Your task to perform on an android device: turn off location Image 0: 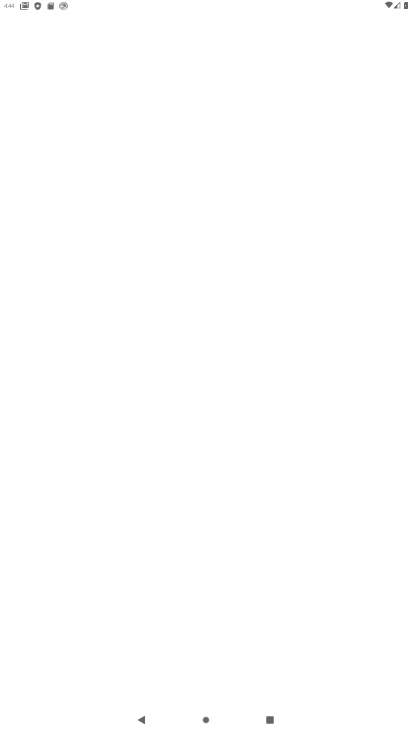
Step 0: press home button
Your task to perform on an android device: turn off location Image 1: 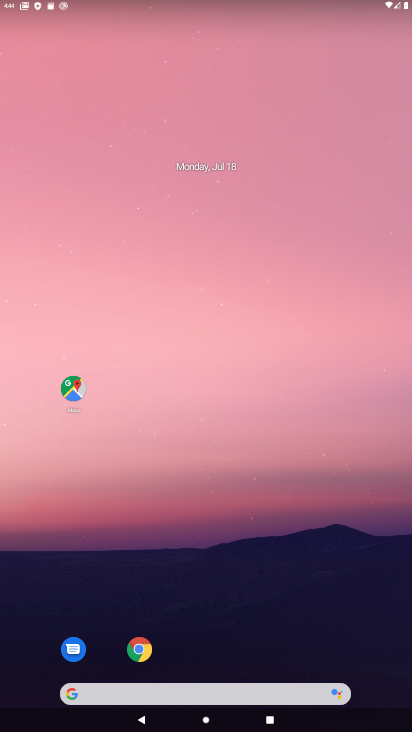
Step 1: drag from (225, 685) to (278, 275)
Your task to perform on an android device: turn off location Image 2: 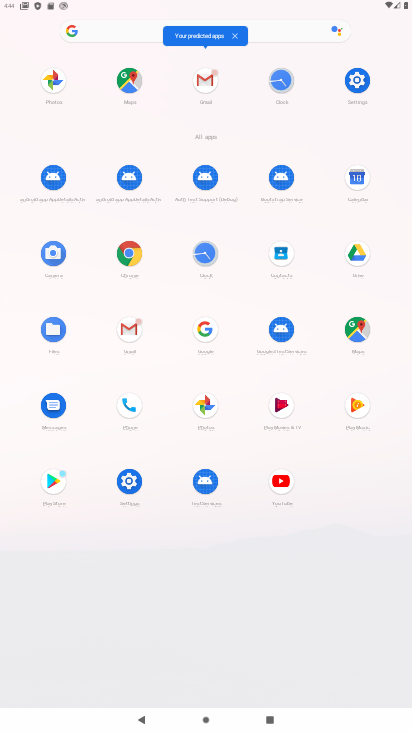
Step 2: click (145, 494)
Your task to perform on an android device: turn off location Image 3: 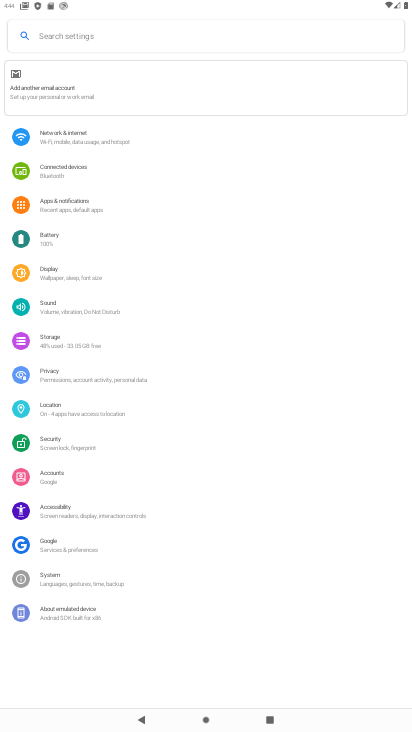
Step 3: click (61, 408)
Your task to perform on an android device: turn off location Image 4: 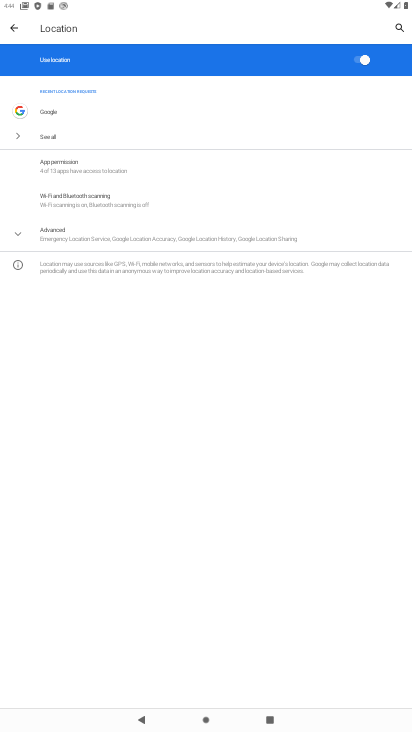
Step 4: click (361, 61)
Your task to perform on an android device: turn off location Image 5: 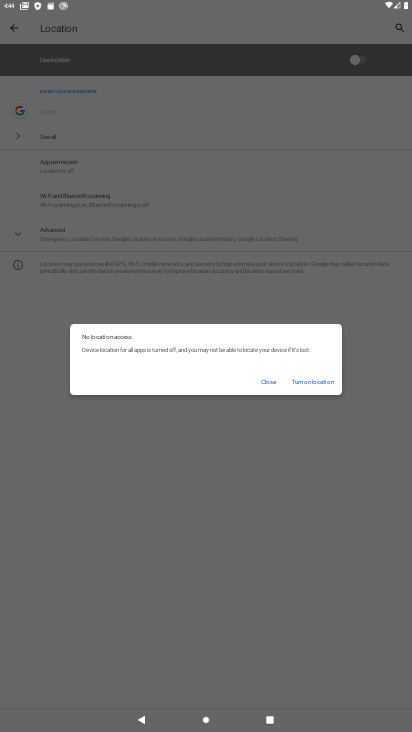
Step 5: task complete